Your task to perform on an android device: see sites visited before in the chrome app Image 0: 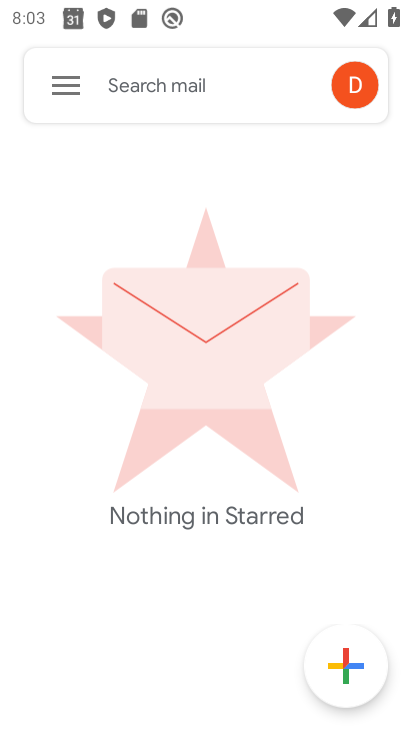
Step 0: task complete